Your task to perform on an android device: toggle notifications settings in the gmail app Image 0: 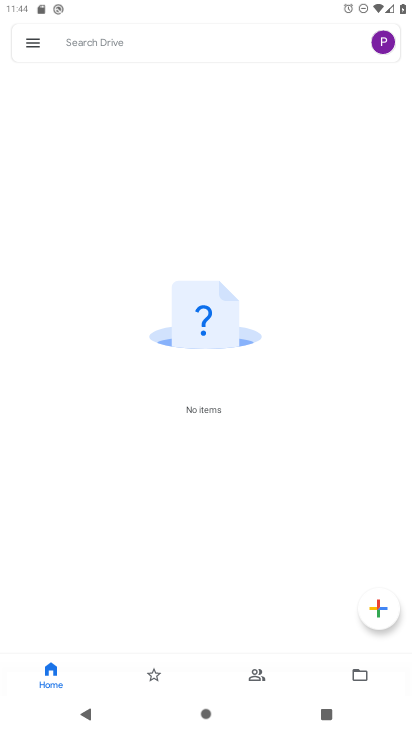
Step 0: press home button
Your task to perform on an android device: toggle notifications settings in the gmail app Image 1: 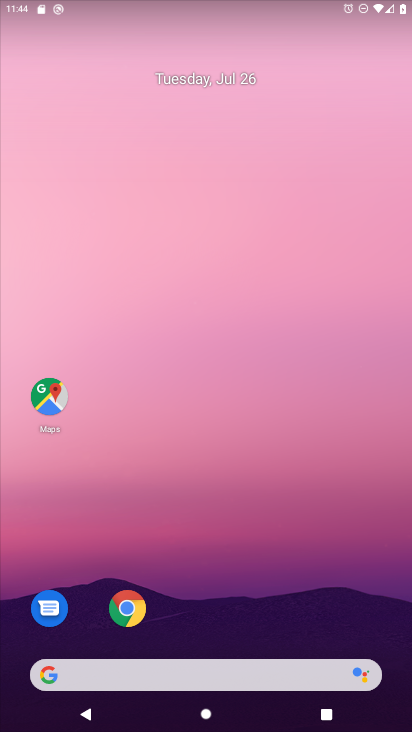
Step 1: drag from (276, 529) to (297, 64)
Your task to perform on an android device: toggle notifications settings in the gmail app Image 2: 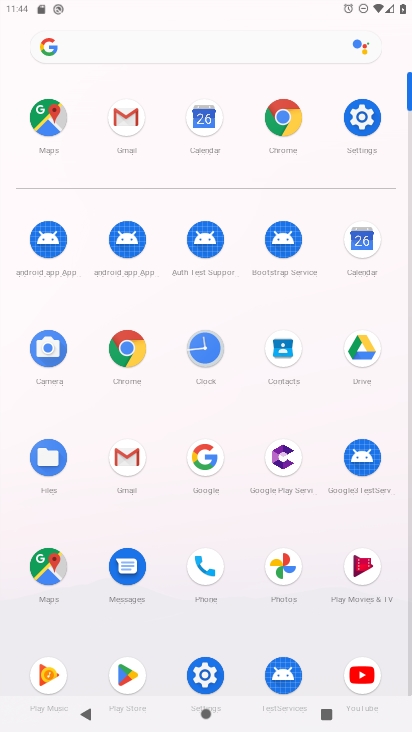
Step 2: click (126, 119)
Your task to perform on an android device: toggle notifications settings in the gmail app Image 3: 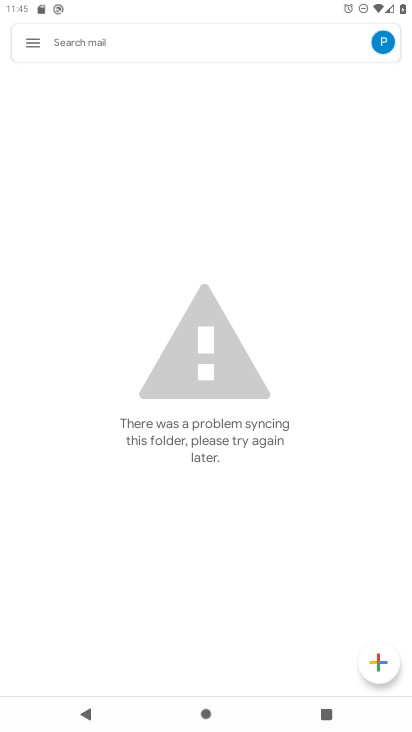
Step 3: click (32, 39)
Your task to perform on an android device: toggle notifications settings in the gmail app Image 4: 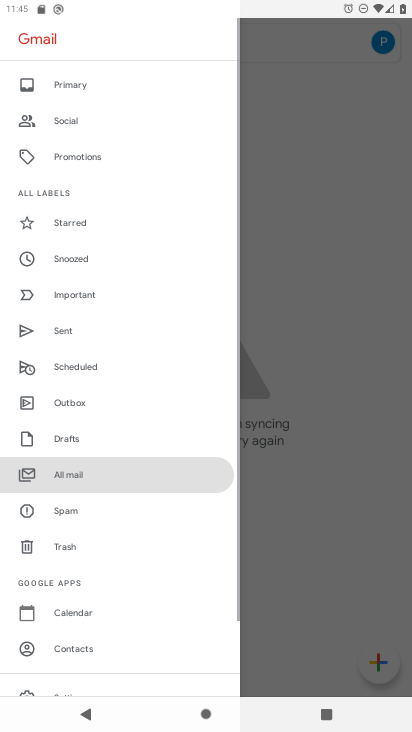
Step 4: drag from (92, 635) to (96, 151)
Your task to perform on an android device: toggle notifications settings in the gmail app Image 5: 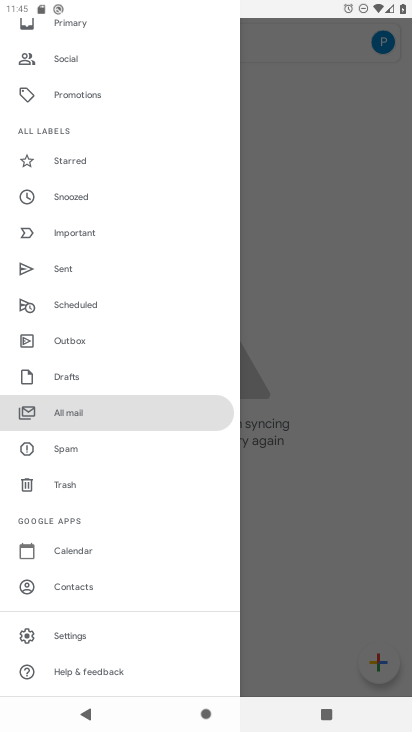
Step 5: click (74, 631)
Your task to perform on an android device: toggle notifications settings in the gmail app Image 6: 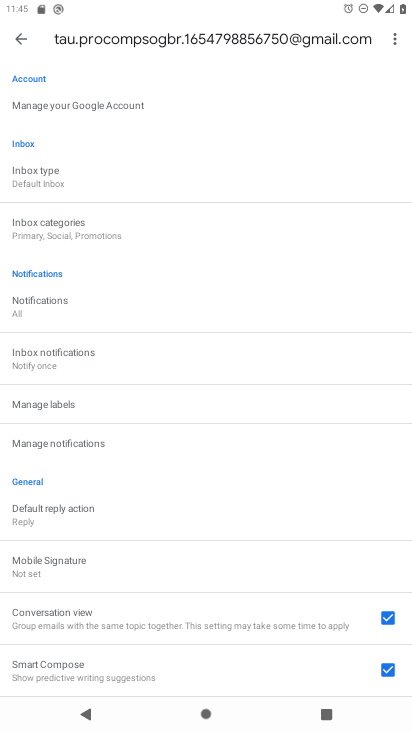
Step 6: click (98, 444)
Your task to perform on an android device: toggle notifications settings in the gmail app Image 7: 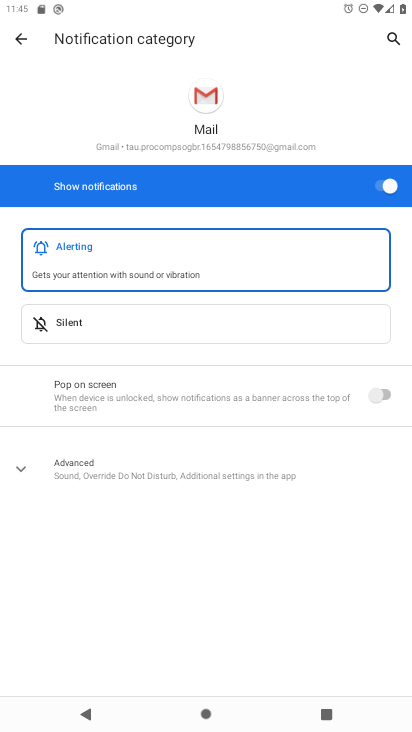
Step 7: click (382, 188)
Your task to perform on an android device: toggle notifications settings in the gmail app Image 8: 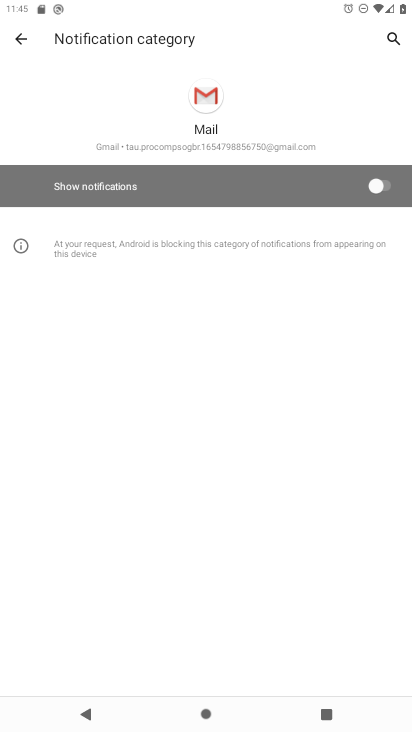
Step 8: task complete